Your task to perform on an android device: Clear all items from cart on target. Add "lg ultragear" to the cart on target Image 0: 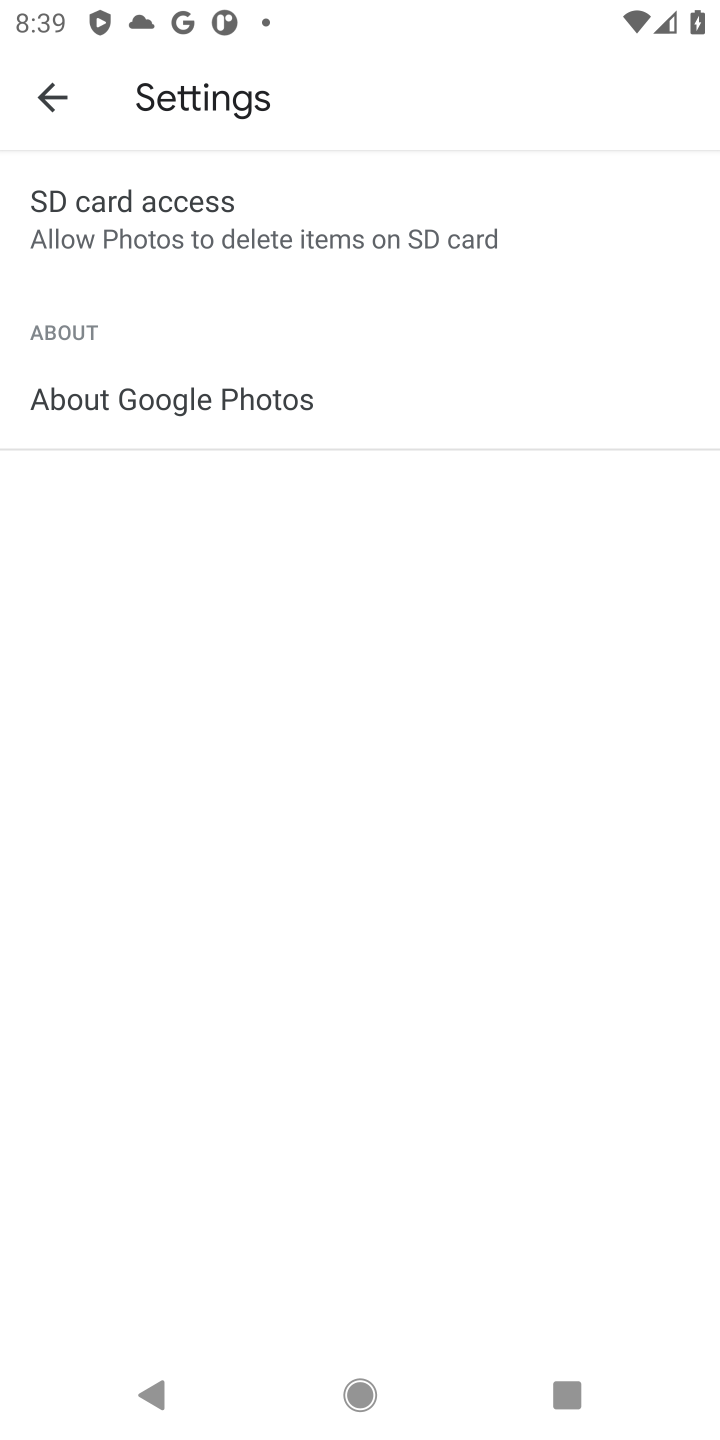
Step 0: press home button
Your task to perform on an android device: Clear all items from cart on target. Add "lg ultragear" to the cart on target Image 1: 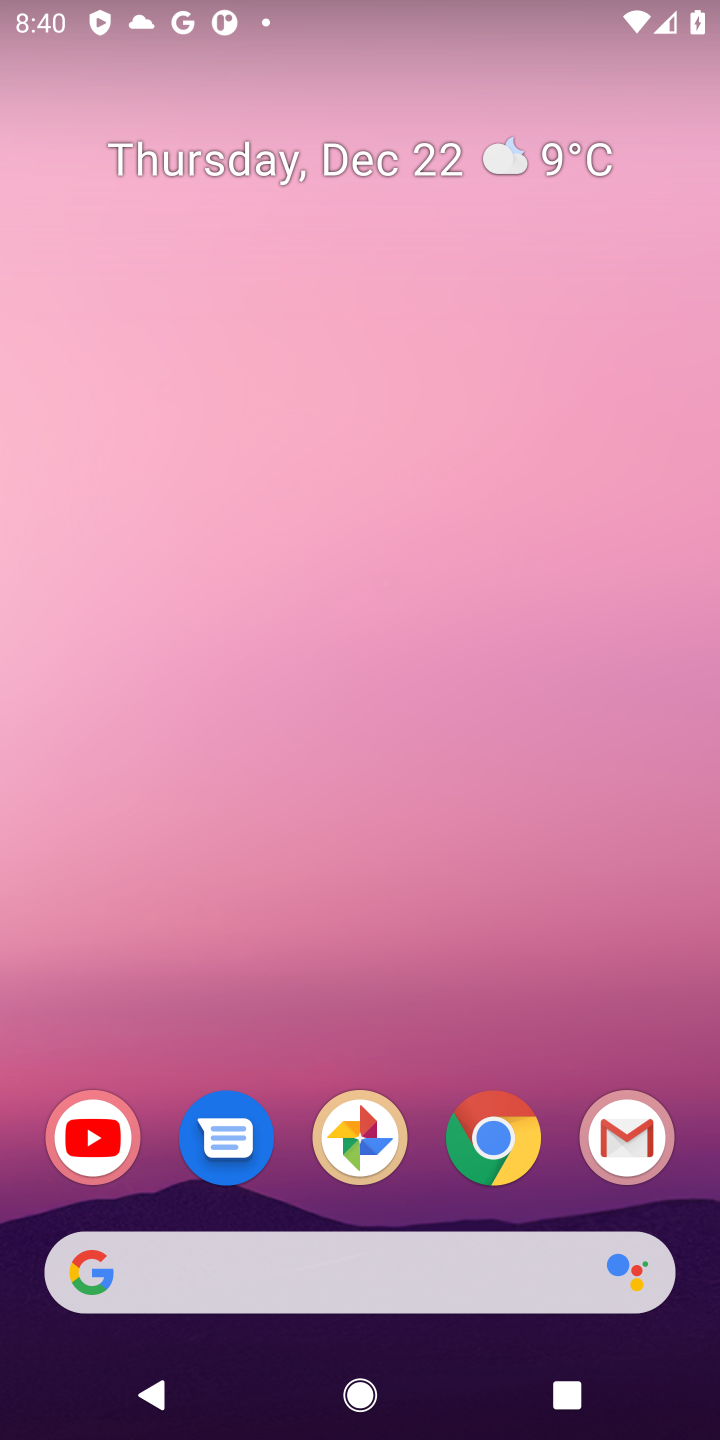
Step 1: click (504, 1151)
Your task to perform on an android device: Clear all items from cart on target. Add "lg ultragear" to the cart on target Image 2: 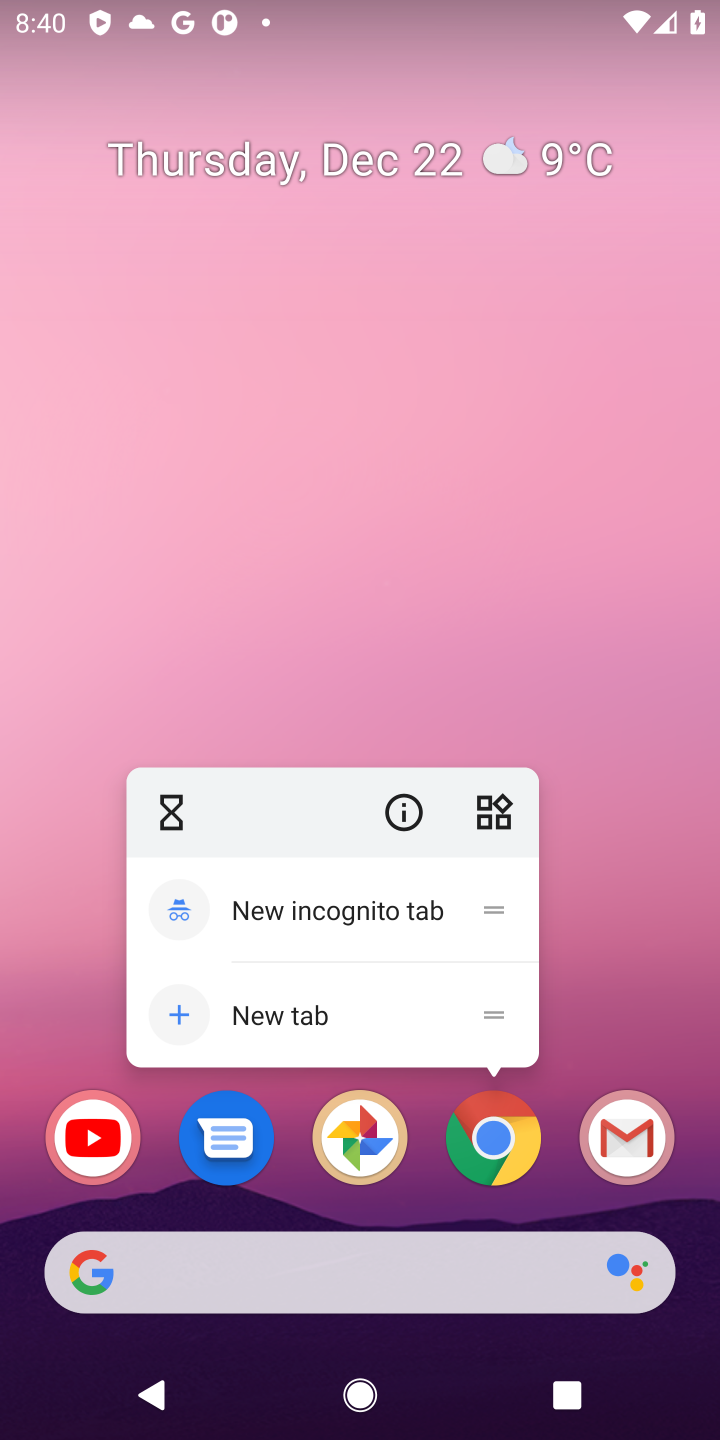
Step 2: click (504, 1151)
Your task to perform on an android device: Clear all items from cart on target. Add "lg ultragear" to the cart on target Image 3: 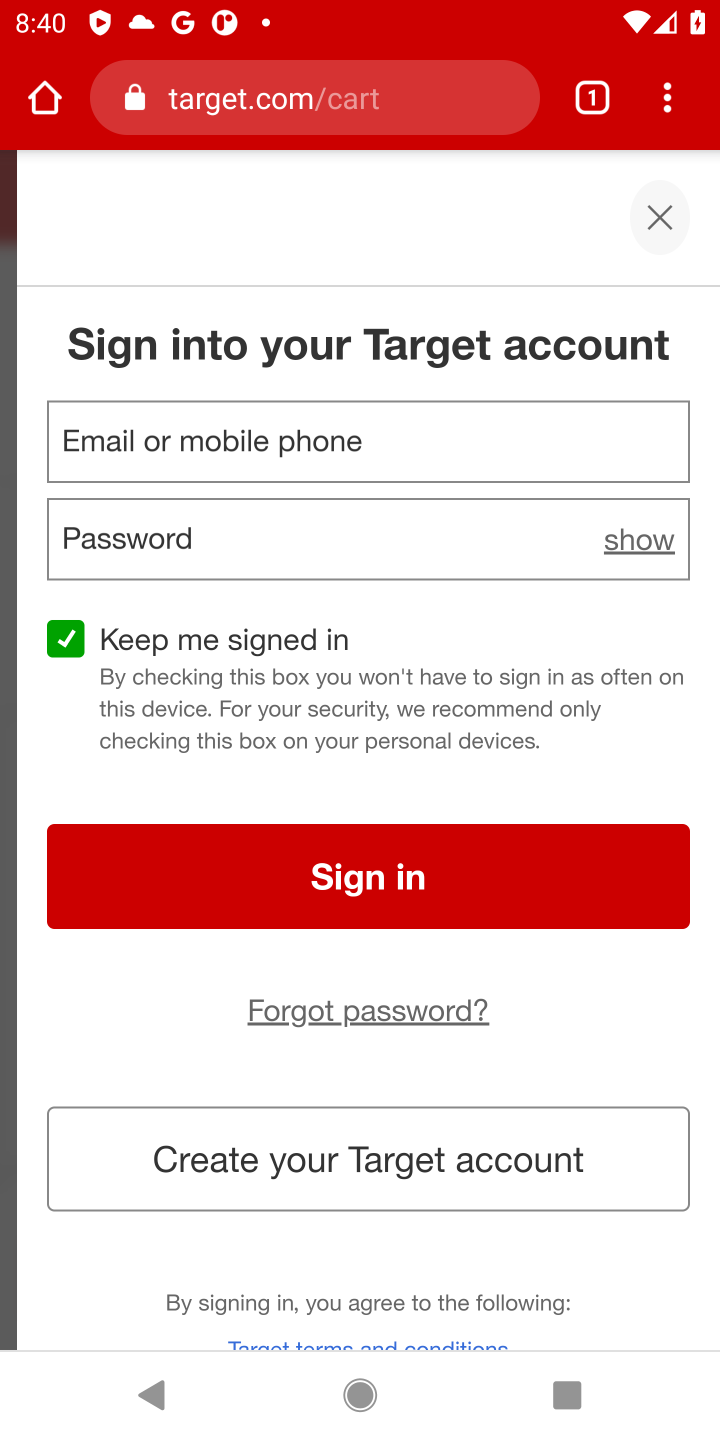
Step 3: task complete